Your task to perform on an android device: Open Google Chrome and click the shortcut for Amazon.com Image 0: 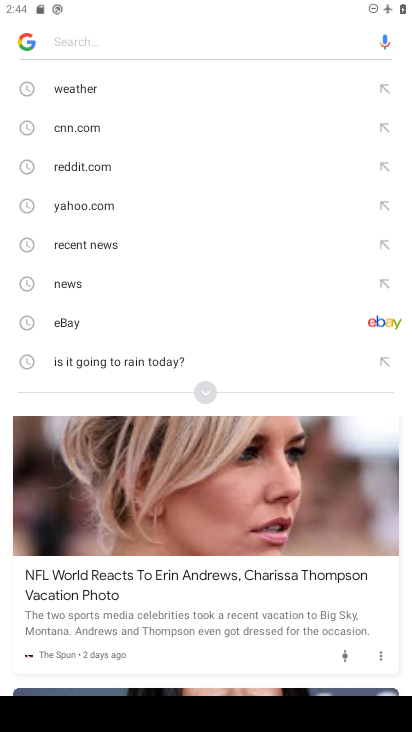
Step 0: press back button
Your task to perform on an android device: Open Google Chrome and click the shortcut for Amazon.com Image 1: 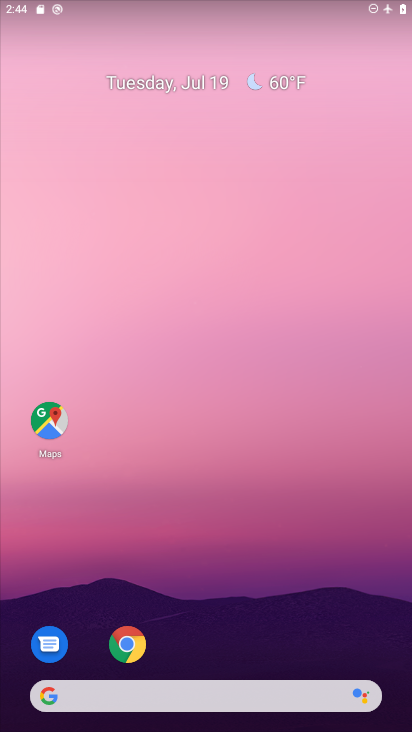
Step 1: click (130, 646)
Your task to perform on an android device: Open Google Chrome and click the shortcut for Amazon.com Image 2: 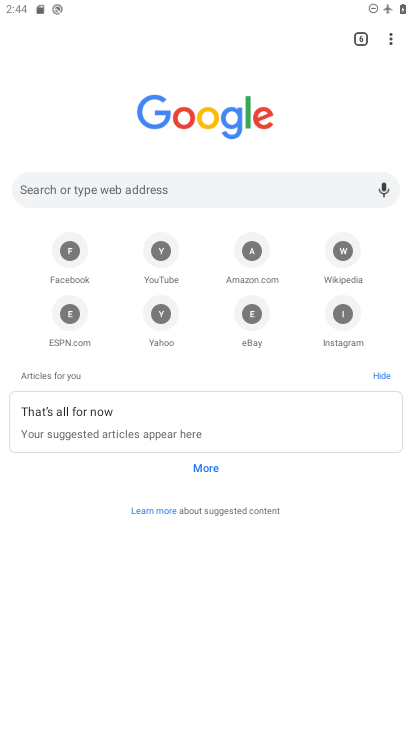
Step 2: click (254, 256)
Your task to perform on an android device: Open Google Chrome and click the shortcut for Amazon.com Image 3: 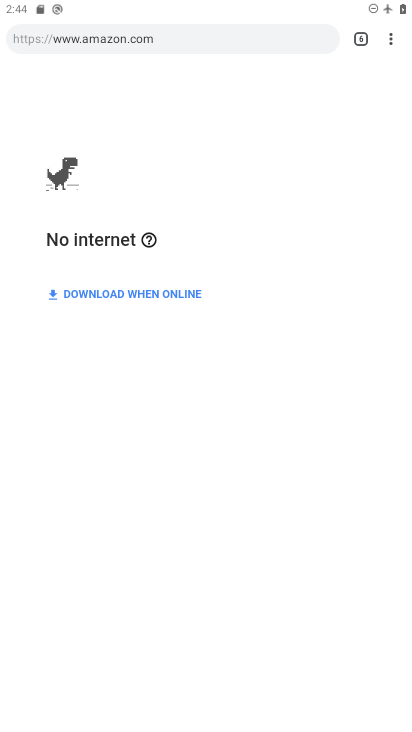
Step 3: task complete